Your task to perform on an android device: choose inbox layout in the gmail app Image 0: 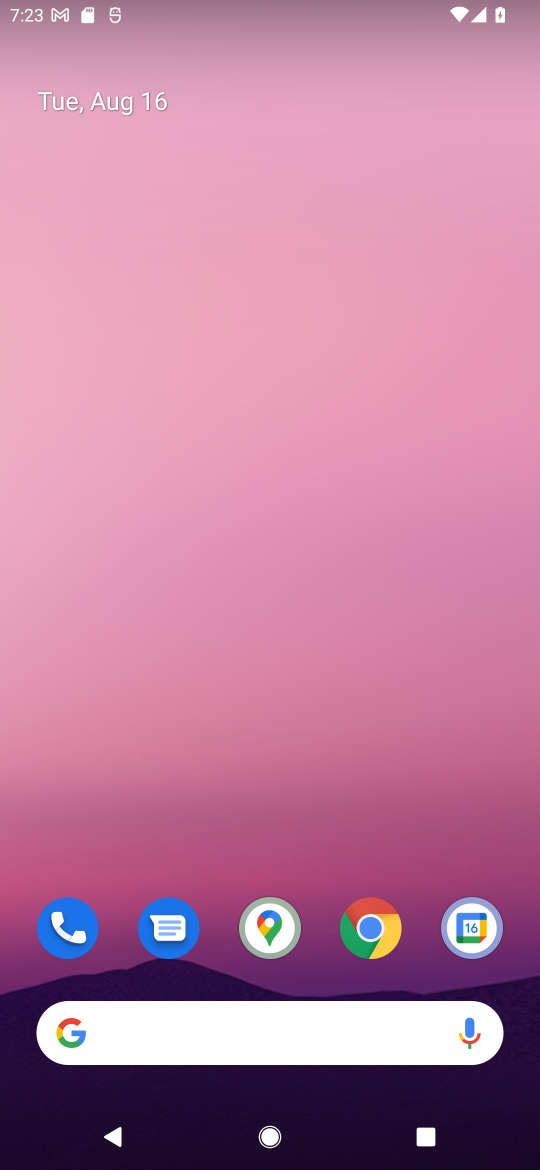
Step 0: drag from (105, 1043) to (87, 1)
Your task to perform on an android device: choose inbox layout in the gmail app Image 1: 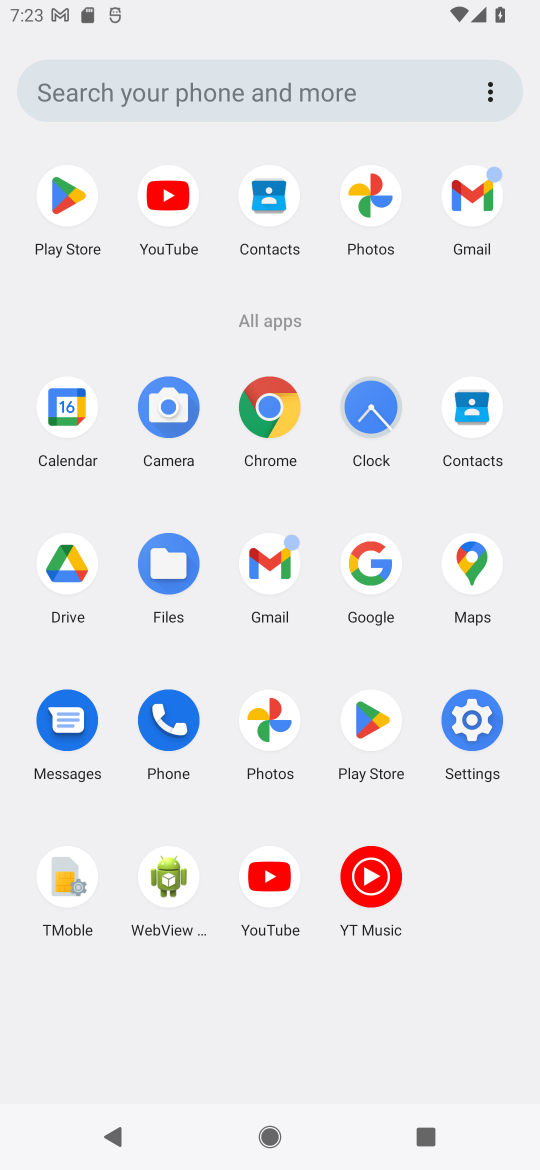
Step 1: click (277, 576)
Your task to perform on an android device: choose inbox layout in the gmail app Image 2: 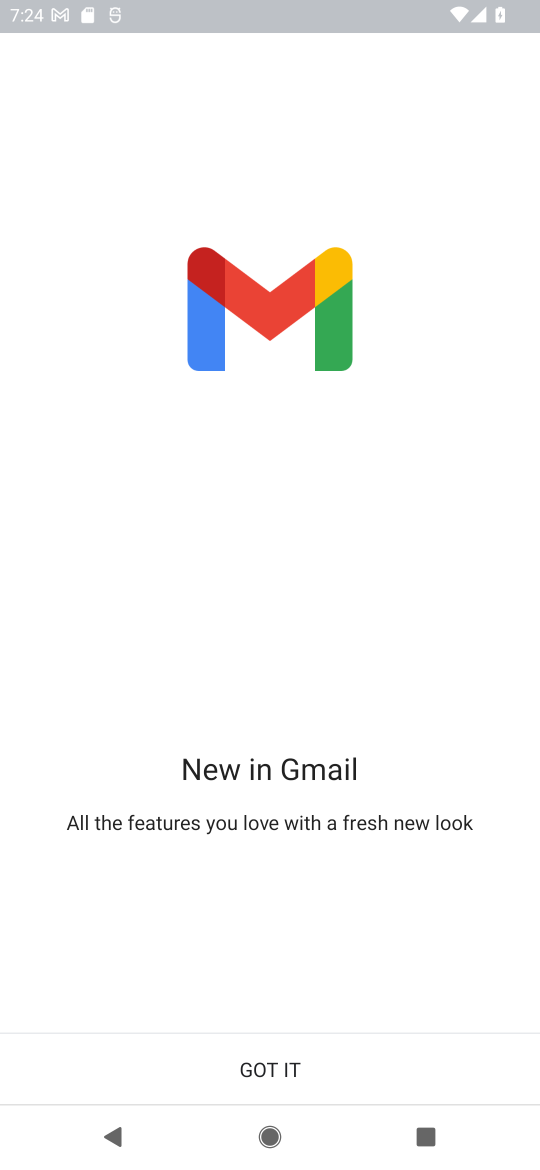
Step 2: click (293, 1074)
Your task to perform on an android device: choose inbox layout in the gmail app Image 3: 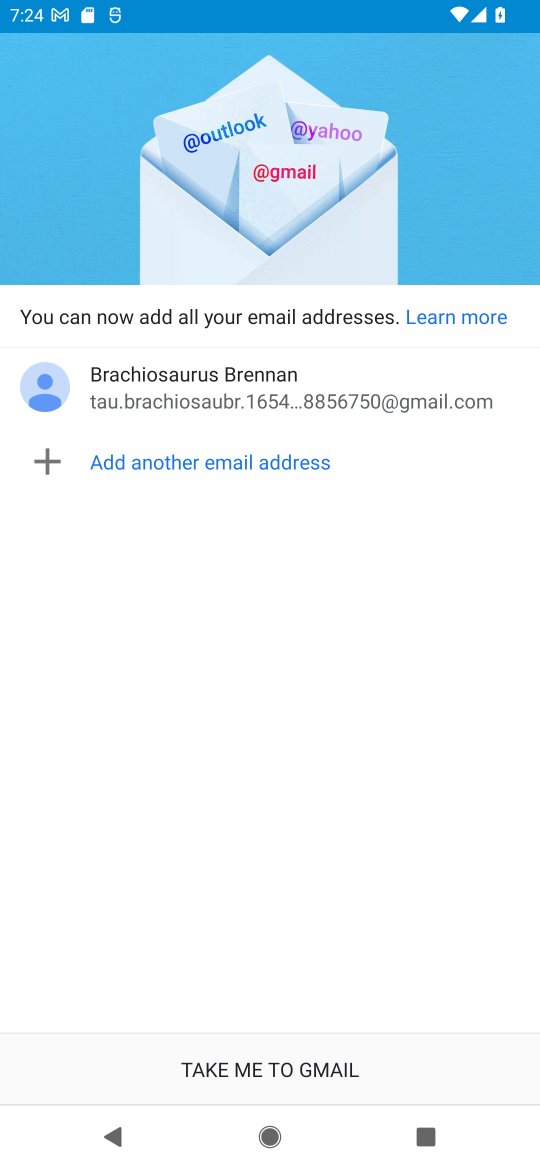
Step 3: click (239, 1081)
Your task to perform on an android device: choose inbox layout in the gmail app Image 4: 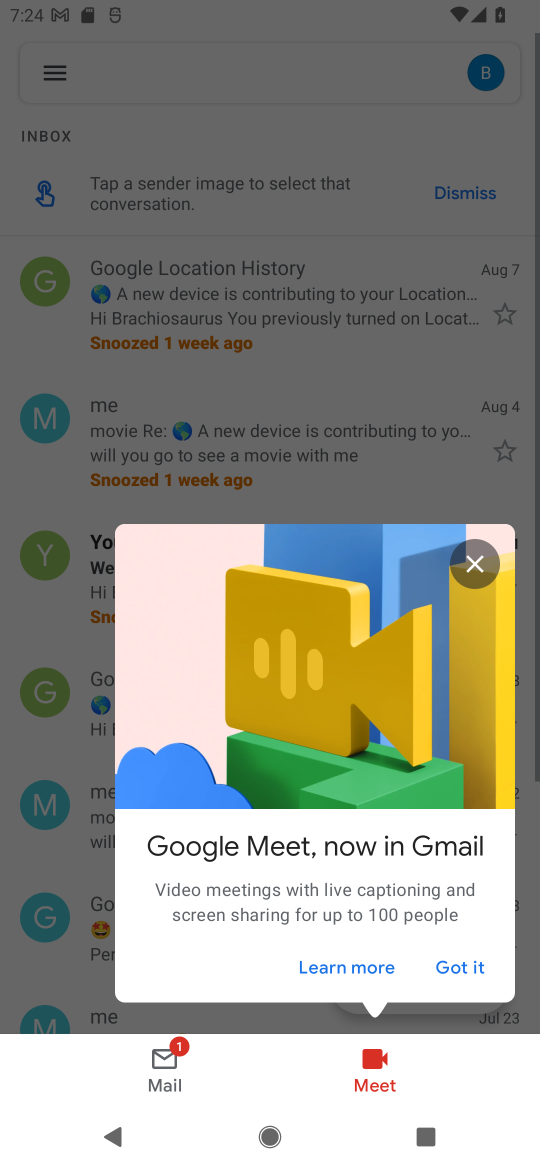
Step 4: click (445, 968)
Your task to perform on an android device: choose inbox layout in the gmail app Image 5: 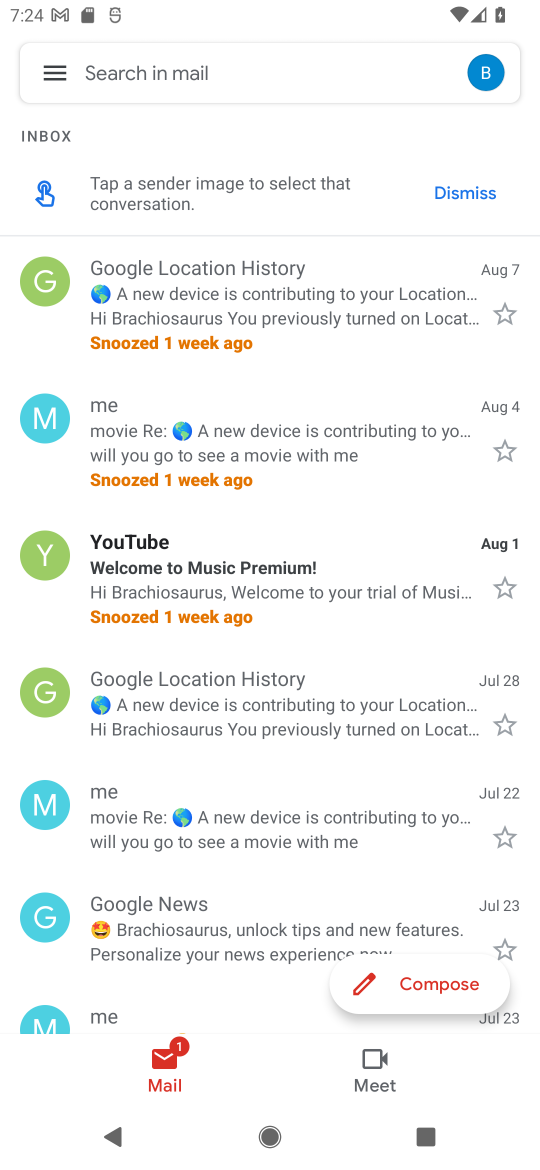
Step 5: click (51, 62)
Your task to perform on an android device: choose inbox layout in the gmail app Image 6: 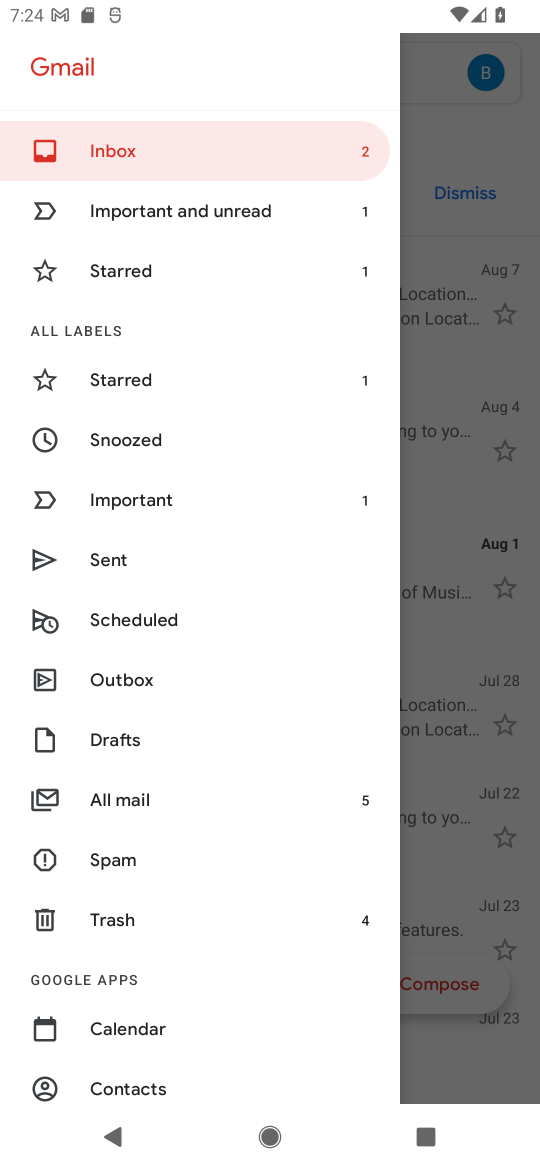
Step 6: drag from (200, 1065) to (251, 140)
Your task to perform on an android device: choose inbox layout in the gmail app Image 7: 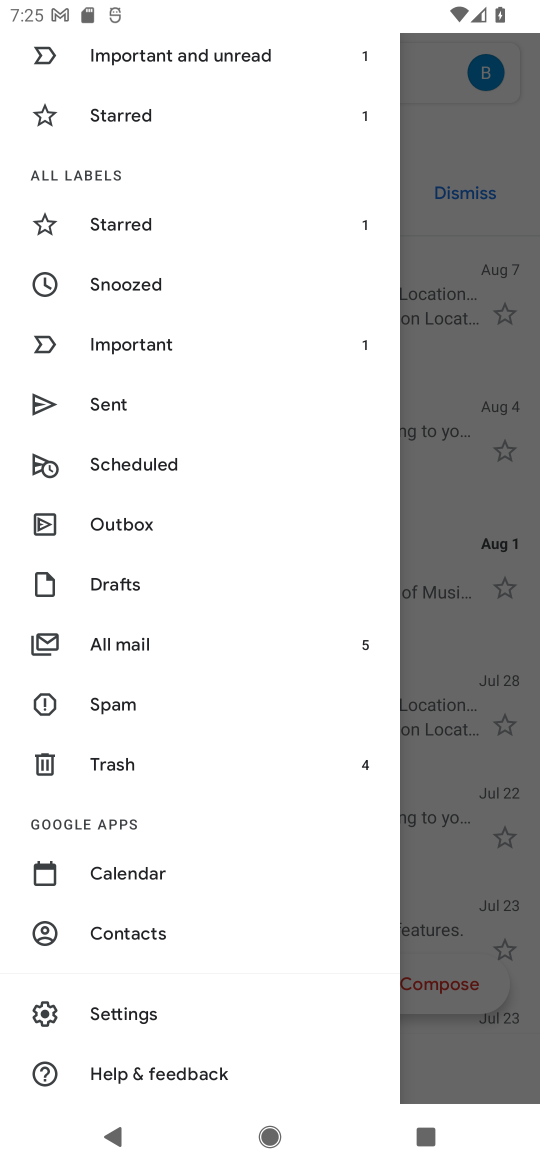
Step 7: click (122, 1007)
Your task to perform on an android device: choose inbox layout in the gmail app Image 8: 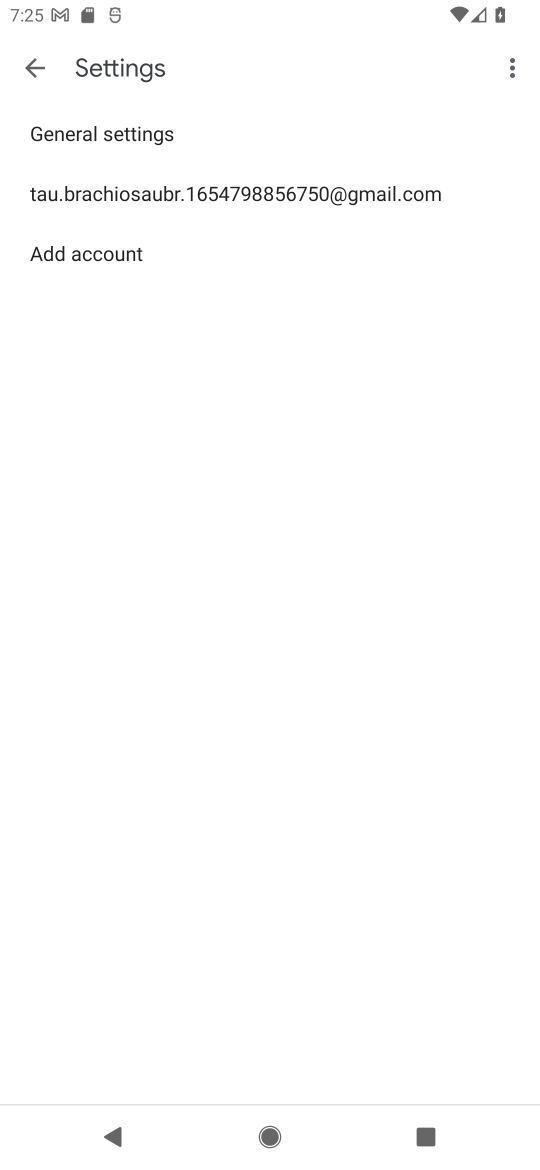
Step 8: click (98, 184)
Your task to perform on an android device: choose inbox layout in the gmail app Image 9: 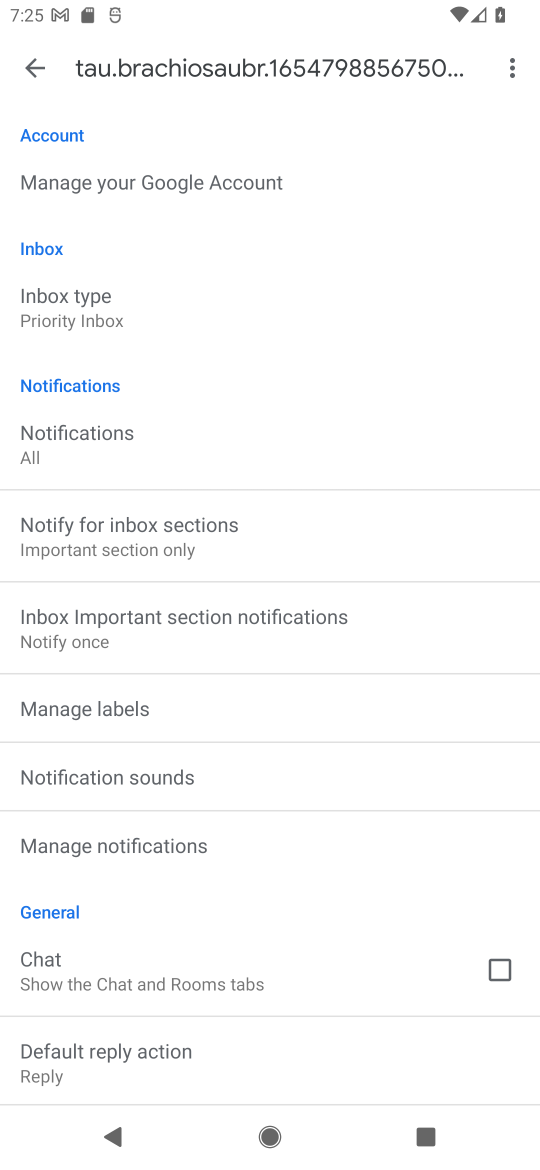
Step 9: click (128, 324)
Your task to perform on an android device: choose inbox layout in the gmail app Image 10: 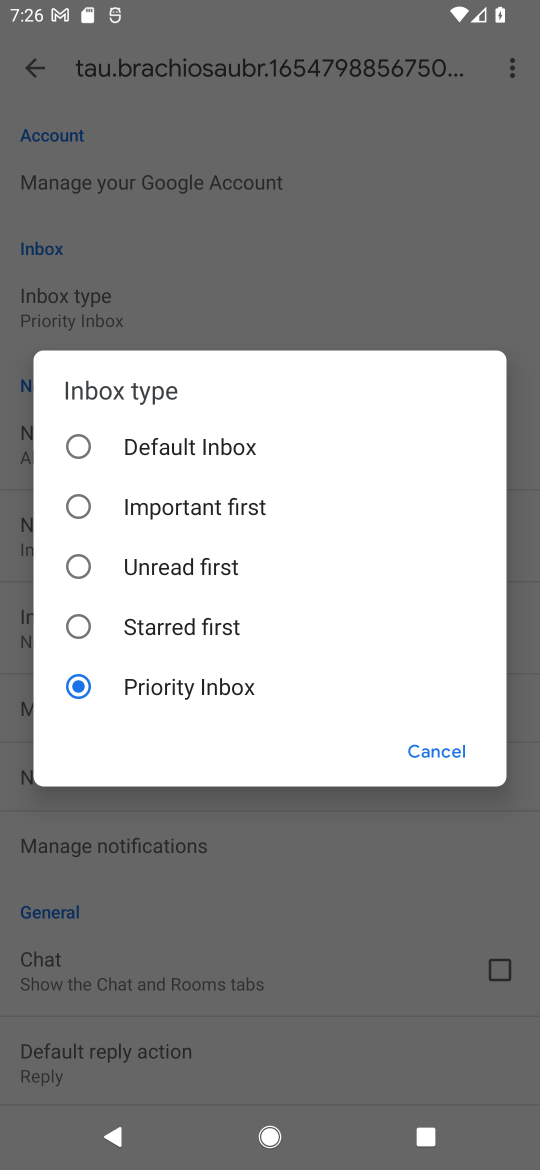
Step 10: click (199, 449)
Your task to perform on an android device: choose inbox layout in the gmail app Image 11: 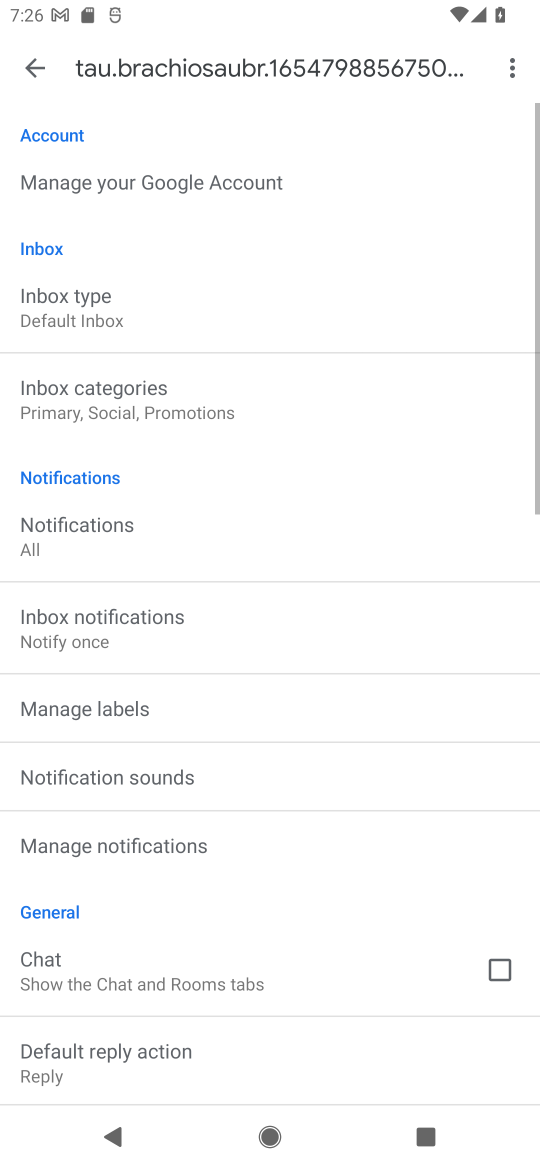
Step 11: task complete